Your task to perform on an android device: change the clock display to digital Image 0: 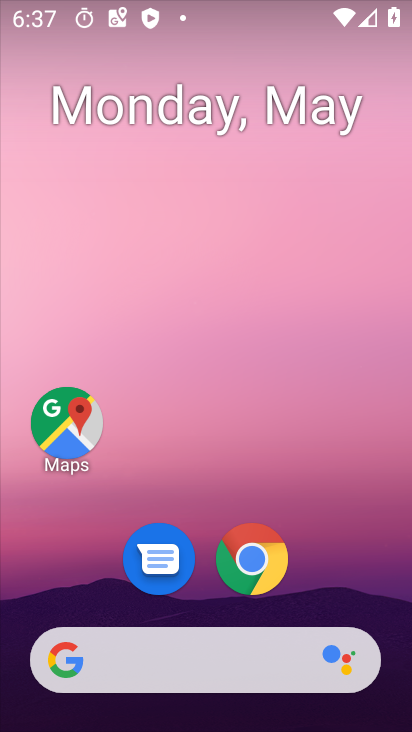
Step 0: drag from (395, 612) to (312, 21)
Your task to perform on an android device: change the clock display to digital Image 1: 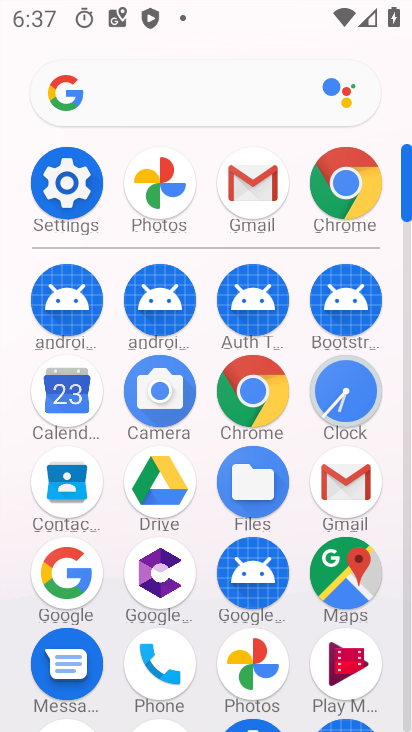
Step 1: click (336, 385)
Your task to perform on an android device: change the clock display to digital Image 2: 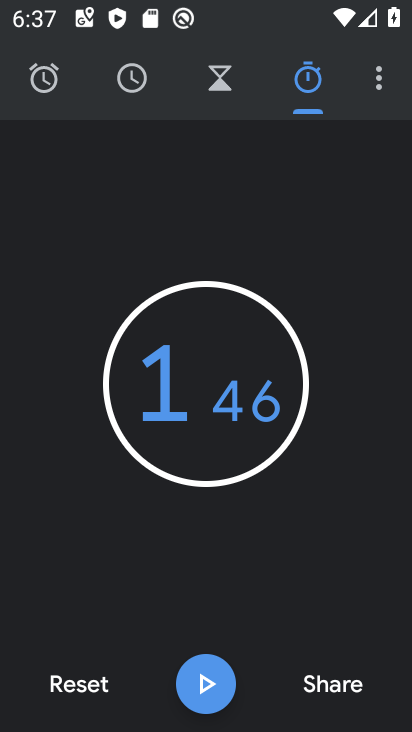
Step 2: click (386, 65)
Your task to perform on an android device: change the clock display to digital Image 3: 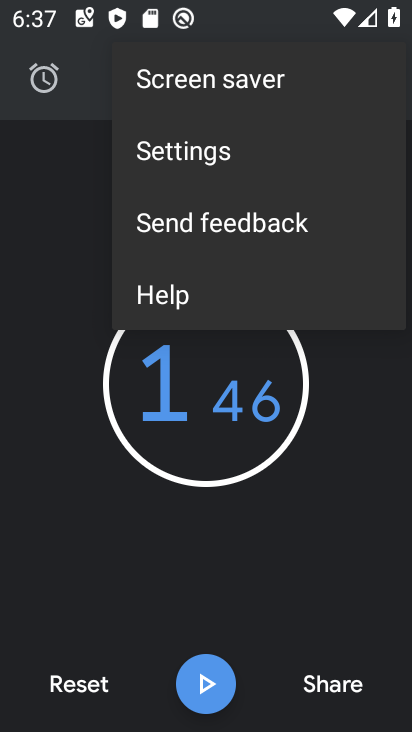
Step 3: click (246, 133)
Your task to perform on an android device: change the clock display to digital Image 4: 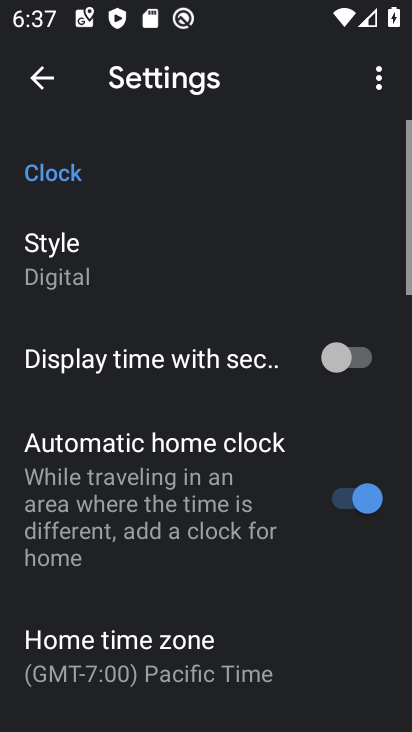
Step 4: click (221, 265)
Your task to perform on an android device: change the clock display to digital Image 5: 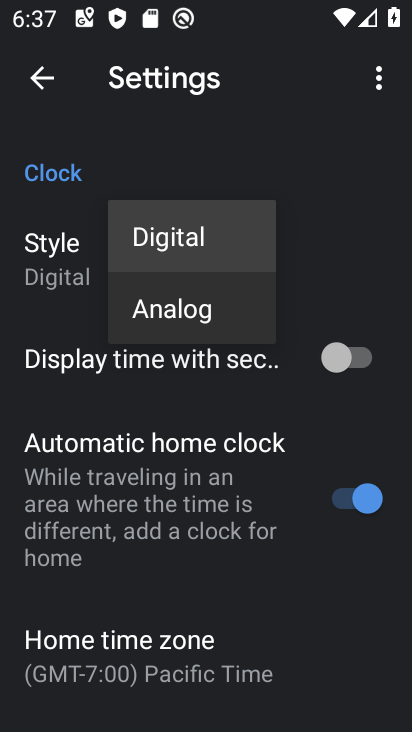
Step 5: click (221, 265)
Your task to perform on an android device: change the clock display to digital Image 6: 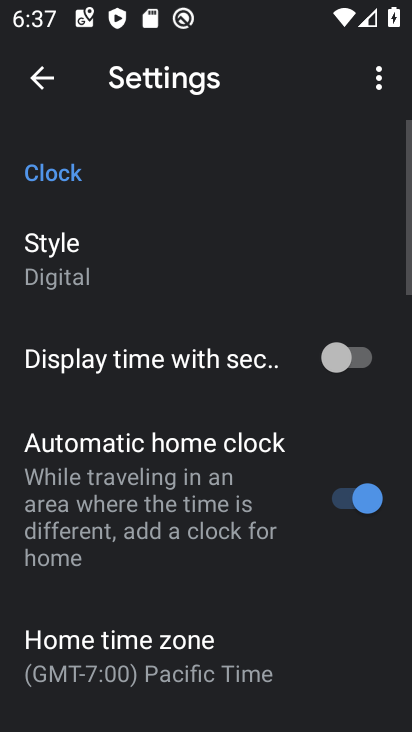
Step 6: task complete